Your task to perform on an android device: toggle javascript in the chrome app Image 0: 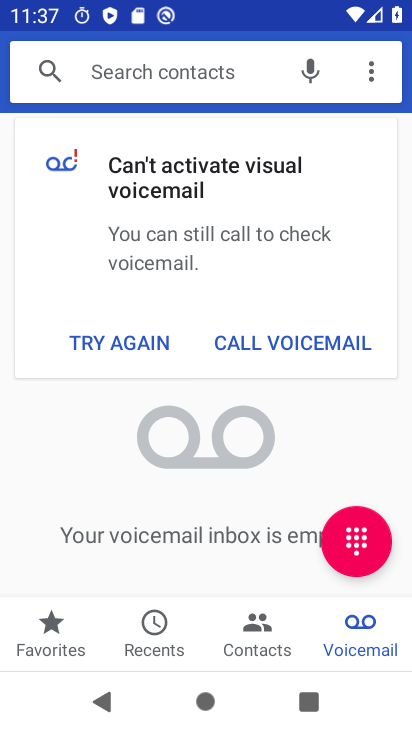
Step 0: press home button
Your task to perform on an android device: toggle javascript in the chrome app Image 1: 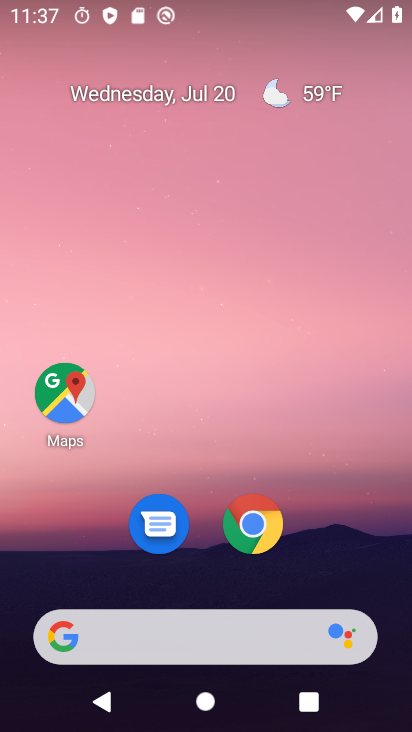
Step 1: click (240, 522)
Your task to perform on an android device: toggle javascript in the chrome app Image 2: 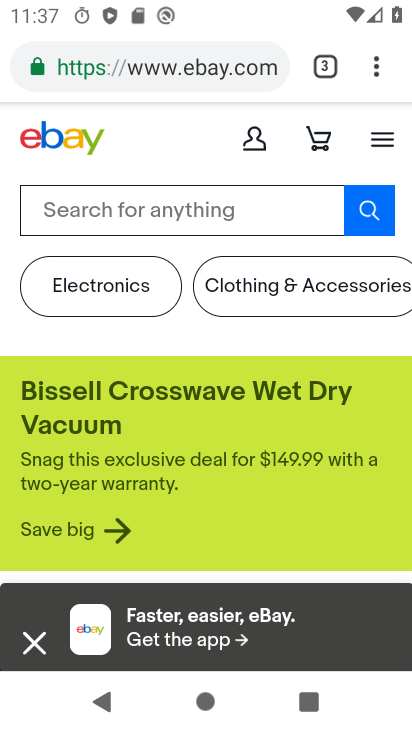
Step 2: drag from (375, 72) to (234, 539)
Your task to perform on an android device: toggle javascript in the chrome app Image 3: 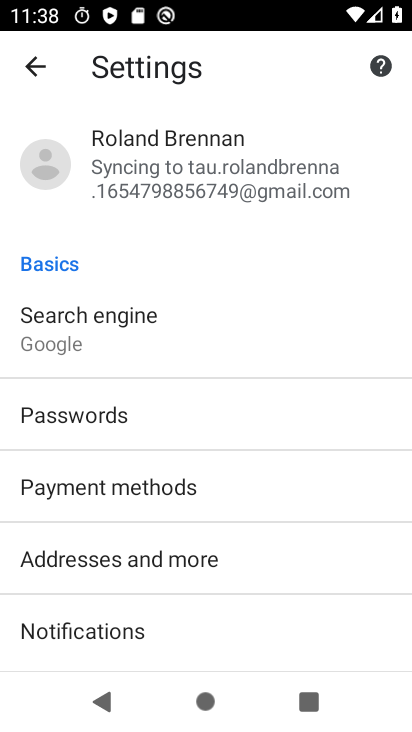
Step 3: drag from (173, 627) to (283, 142)
Your task to perform on an android device: toggle javascript in the chrome app Image 4: 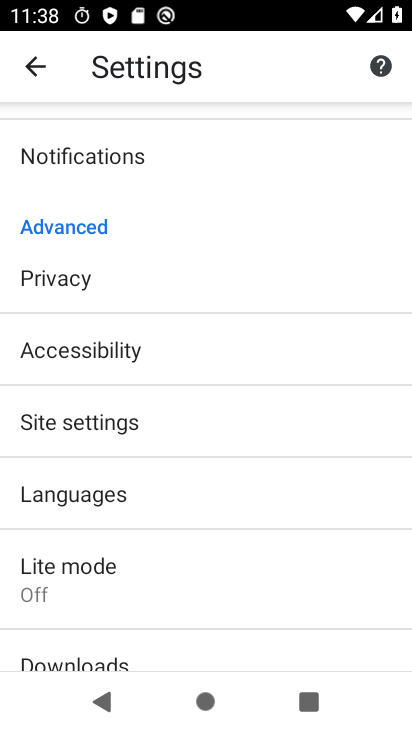
Step 4: click (121, 429)
Your task to perform on an android device: toggle javascript in the chrome app Image 5: 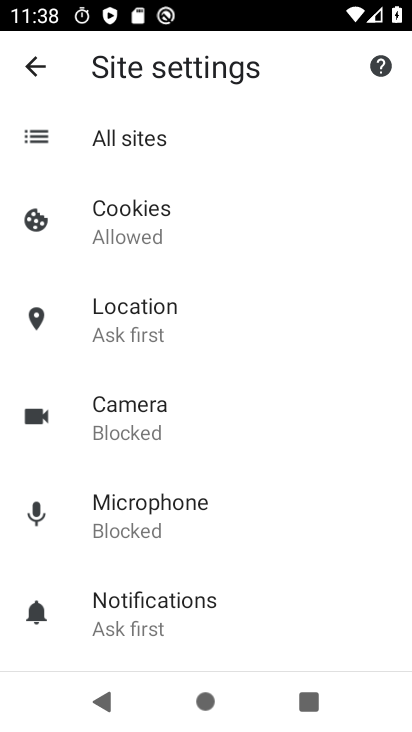
Step 5: drag from (229, 561) to (282, 202)
Your task to perform on an android device: toggle javascript in the chrome app Image 6: 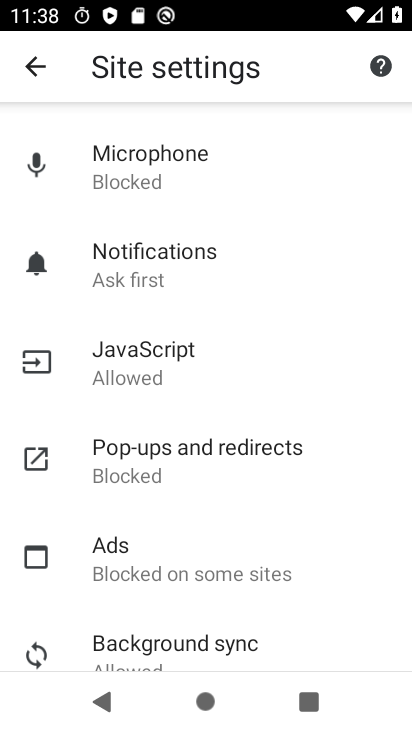
Step 6: click (185, 364)
Your task to perform on an android device: toggle javascript in the chrome app Image 7: 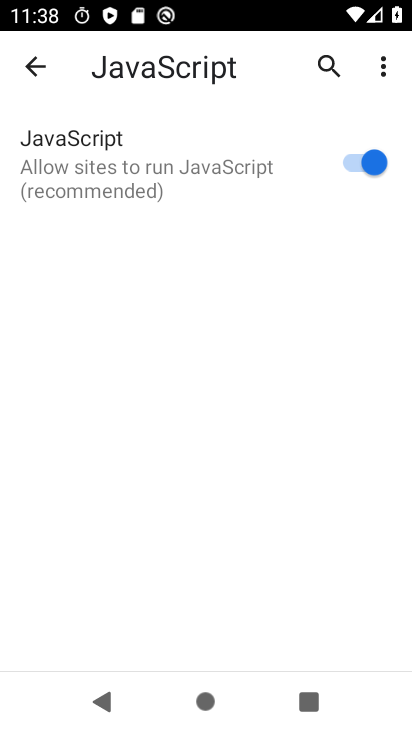
Step 7: click (354, 163)
Your task to perform on an android device: toggle javascript in the chrome app Image 8: 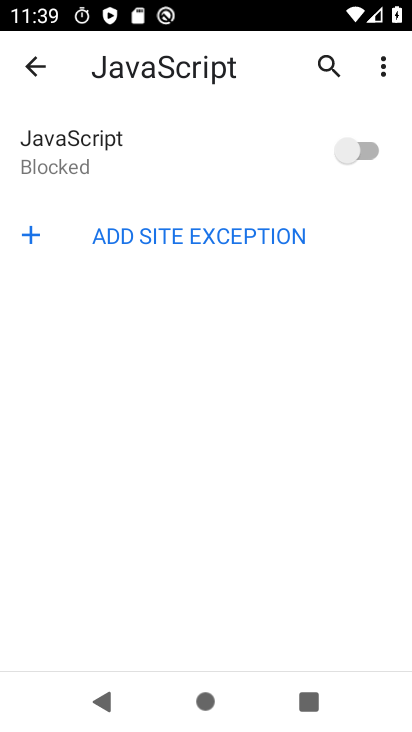
Step 8: task complete